Your task to perform on an android device: turn notification dots off Image 0: 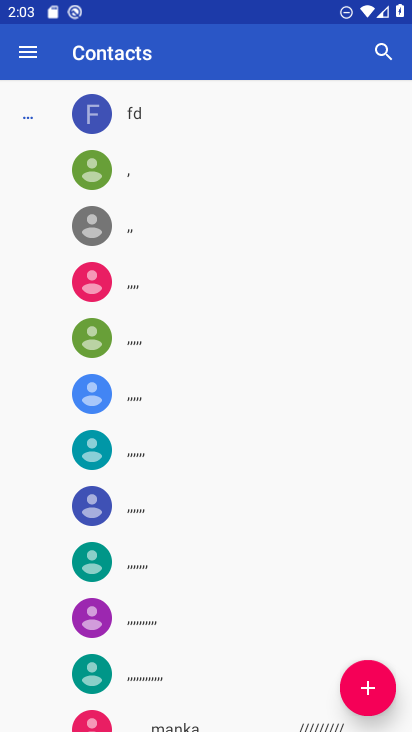
Step 0: press home button
Your task to perform on an android device: turn notification dots off Image 1: 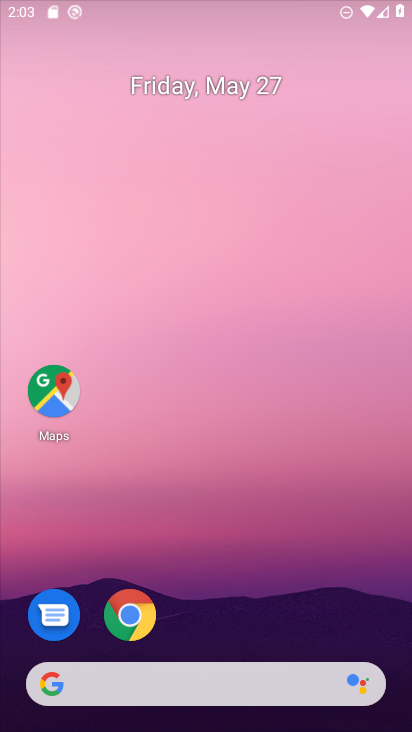
Step 1: drag from (215, 553) to (215, 56)
Your task to perform on an android device: turn notification dots off Image 2: 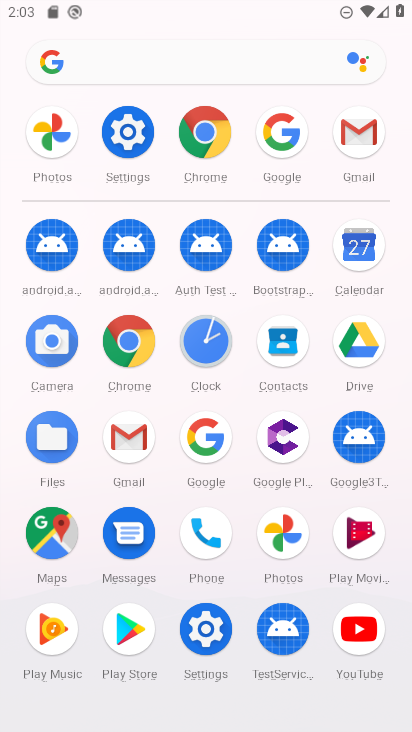
Step 2: click (207, 638)
Your task to perform on an android device: turn notification dots off Image 3: 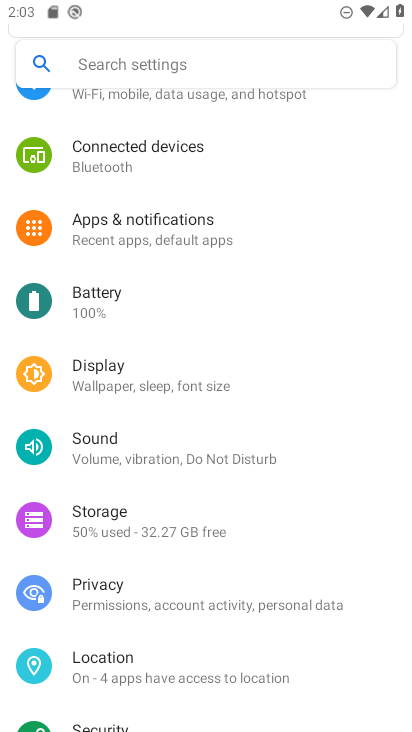
Step 3: click (136, 234)
Your task to perform on an android device: turn notification dots off Image 4: 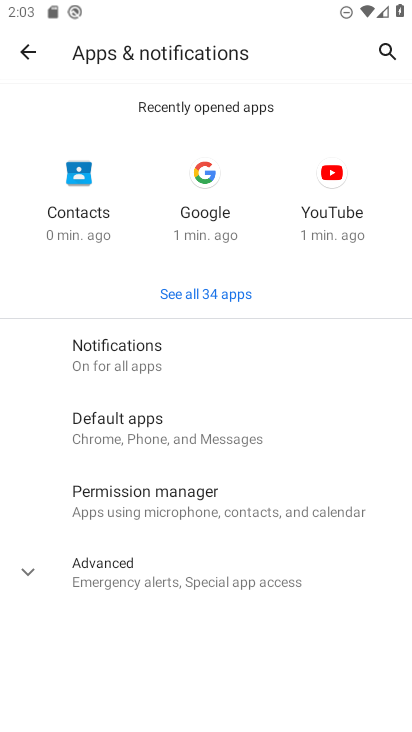
Step 4: click (197, 370)
Your task to perform on an android device: turn notification dots off Image 5: 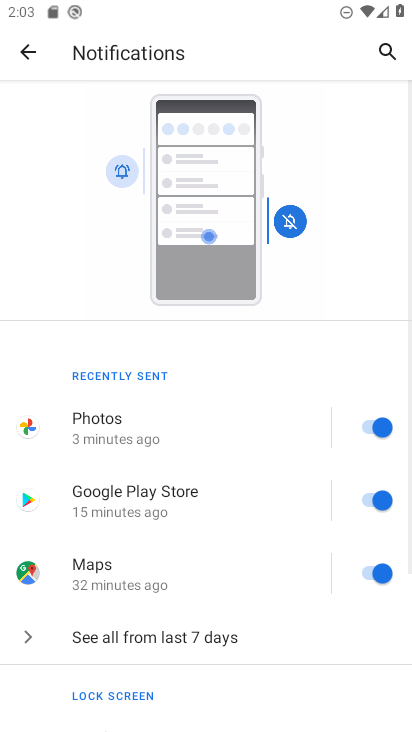
Step 5: drag from (250, 494) to (216, 29)
Your task to perform on an android device: turn notification dots off Image 6: 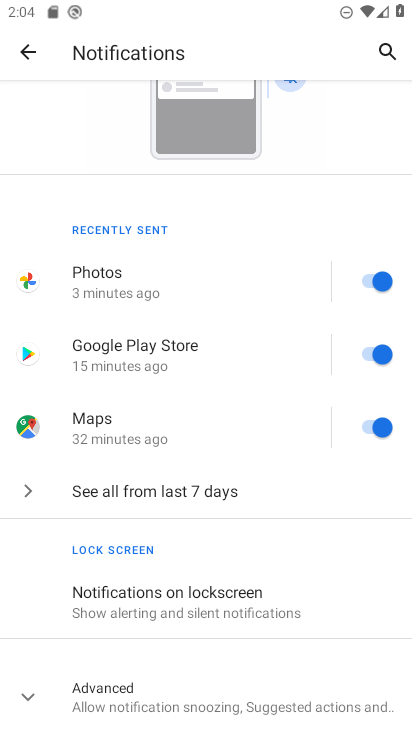
Step 6: click (178, 683)
Your task to perform on an android device: turn notification dots off Image 7: 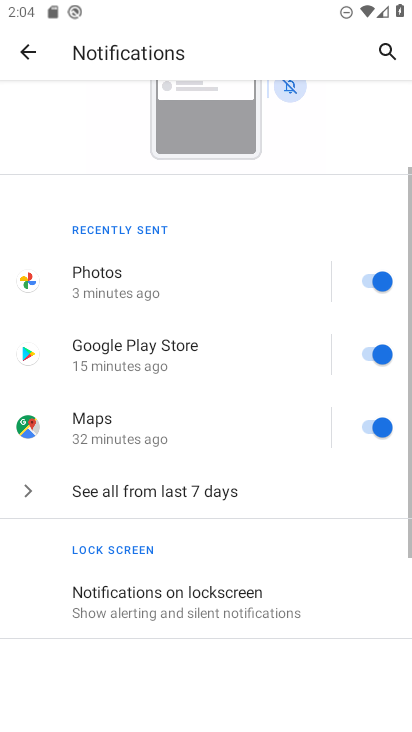
Step 7: drag from (165, 637) to (118, 120)
Your task to perform on an android device: turn notification dots off Image 8: 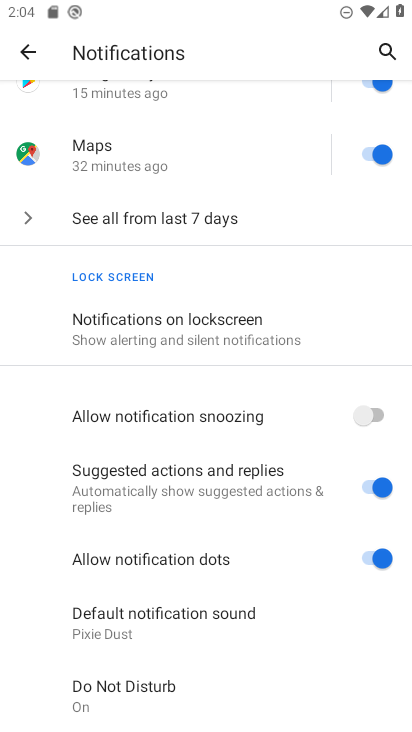
Step 8: click (372, 560)
Your task to perform on an android device: turn notification dots off Image 9: 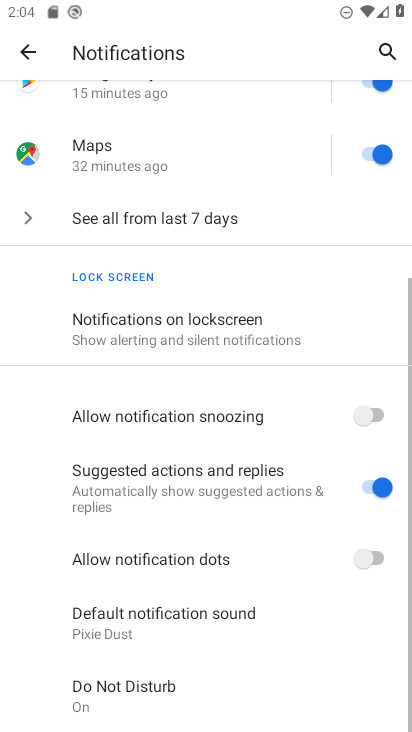
Step 9: task complete